Your task to perform on an android device: Open battery settings Image 0: 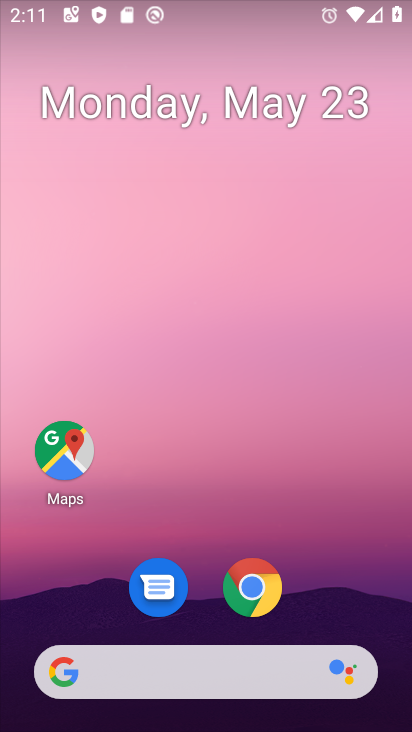
Step 0: drag from (353, 576) to (317, 167)
Your task to perform on an android device: Open battery settings Image 1: 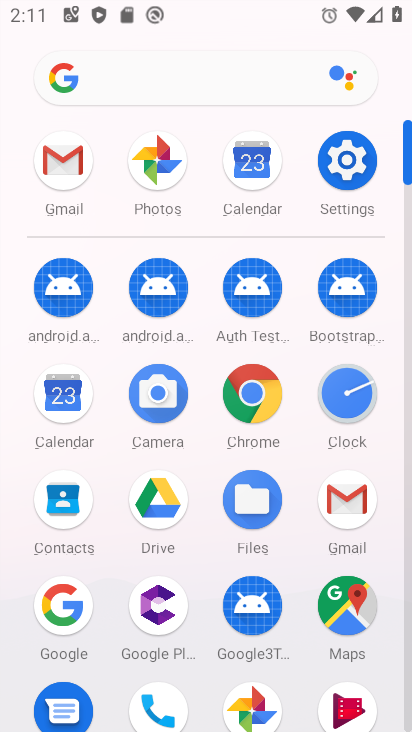
Step 1: click (359, 178)
Your task to perform on an android device: Open battery settings Image 2: 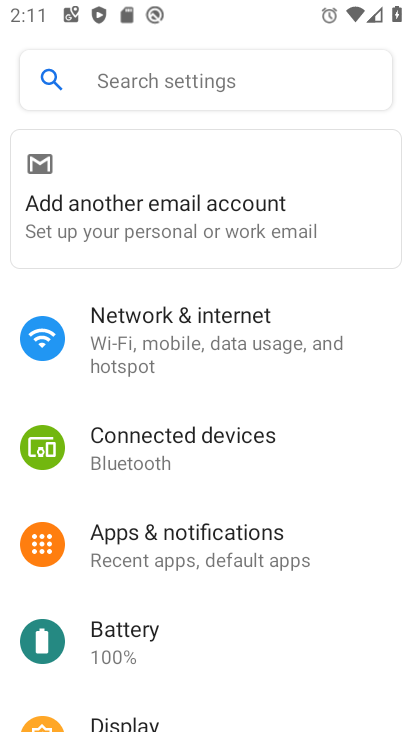
Step 2: click (192, 626)
Your task to perform on an android device: Open battery settings Image 3: 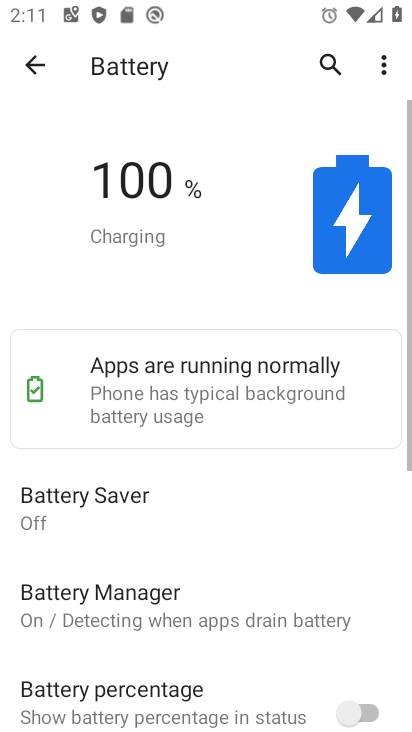
Step 3: task complete